Your task to perform on an android device: Open Google Chrome and click the shortcut for Amazon.com Image 0: 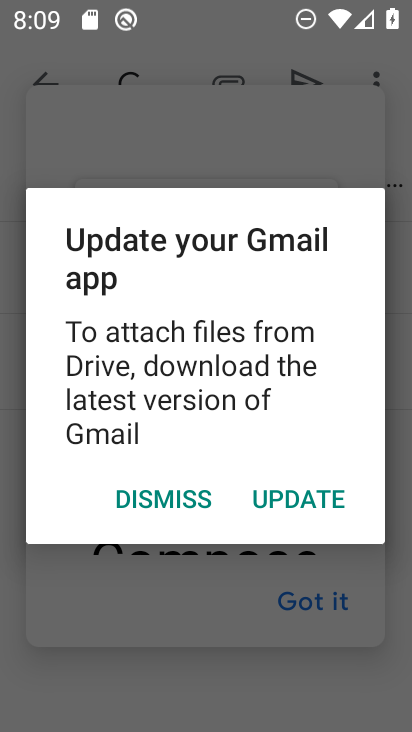
Step 0: press home button
Your task to perform on an android device: Open Google Chrome and click the shortcut for Amazon.com Image 1: 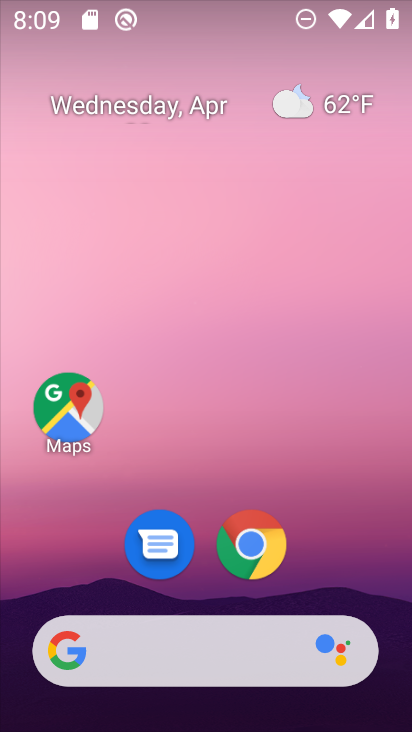
Step 1: click (261, 557)
Your task to perform on an android device: Open Google Chrome and click the shortcut for Amazon.com Image 2: 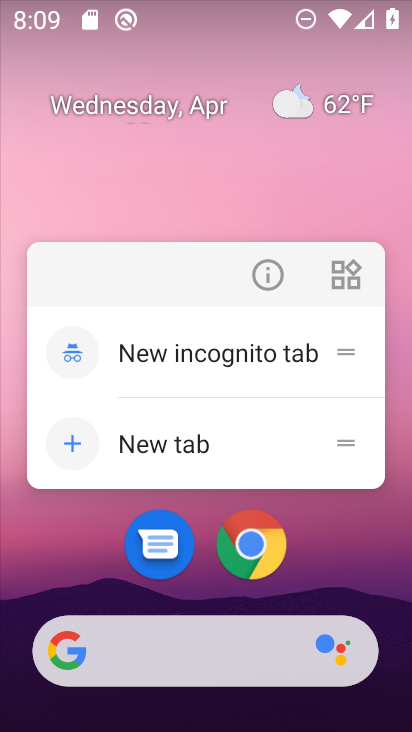
Step 2: click (261, 557)
Your task to perform on an android device: Open Google Chrome and click the shortcut for Amazon.com Image 3: 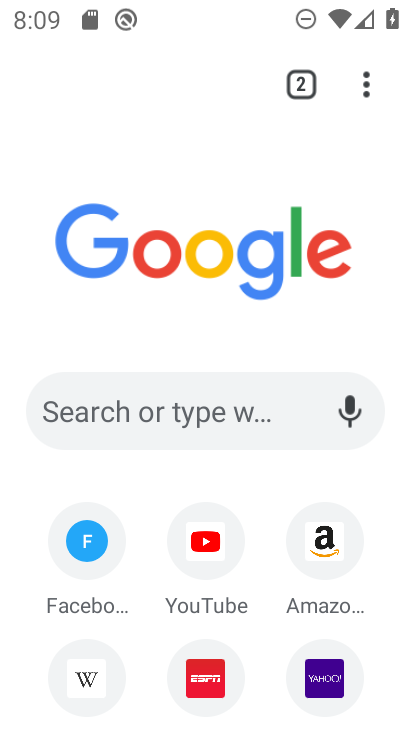
Step 3: click (316, 538)
Your task to perform on an android device: Open Google Chrome and click the shortcut for Amazon.com Image 4: 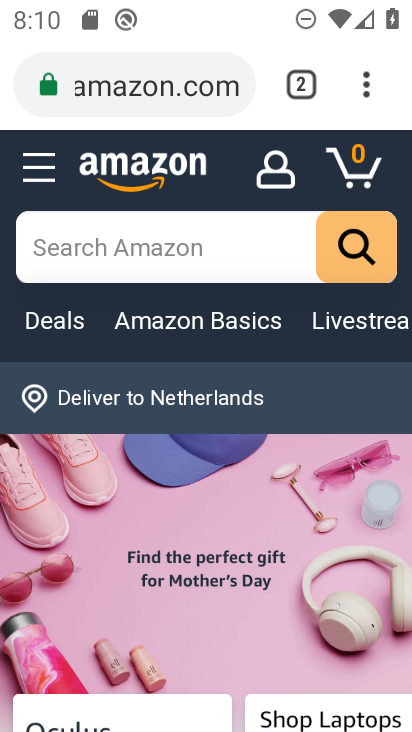
Step 4: task complete